Your task to perform on an android device: Open privacy settings Image 0: 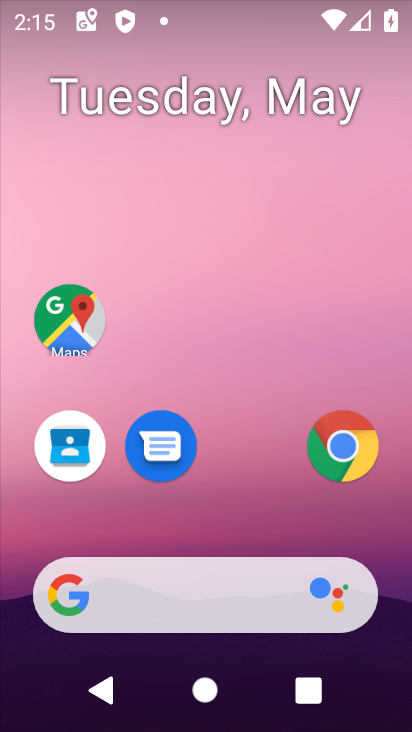
Step 0: drag from (225, 558) to (158, 104)
Your task to perform on an android device: Open privacy settings Image 1: 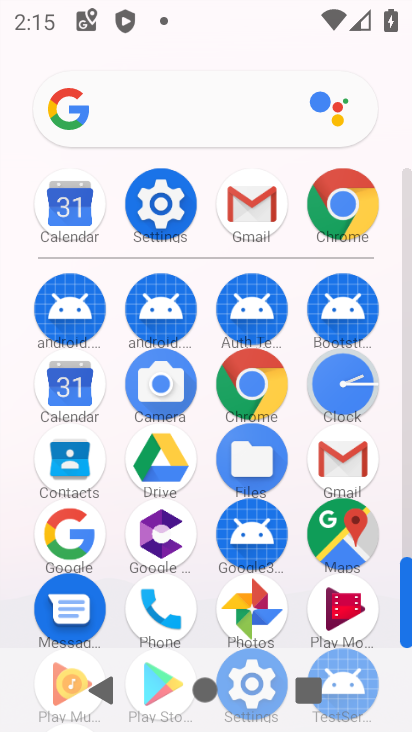
Step 1: click (177, 217)
Your task to perform on an android device: Open privacy settings Image 2: 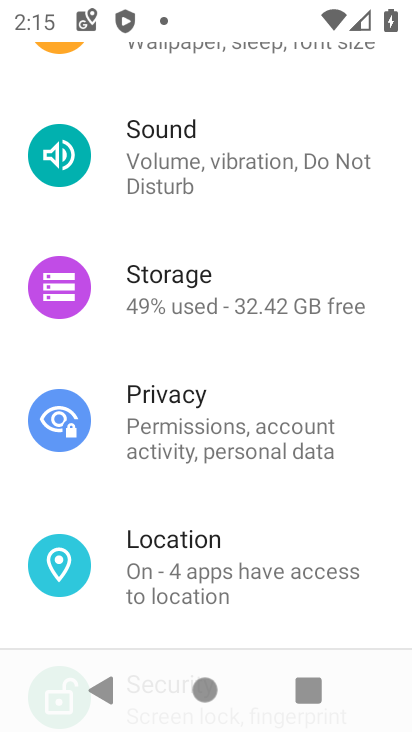
Step 2: click (190, 424)
Your task to perform on an android device: Open privacy settings Image 3: 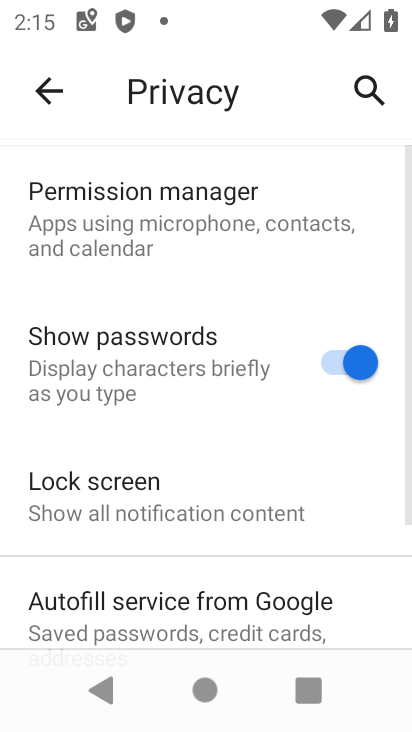
Step 3: task complete